Your task to perform on an android device: Open Amazon Image 0: 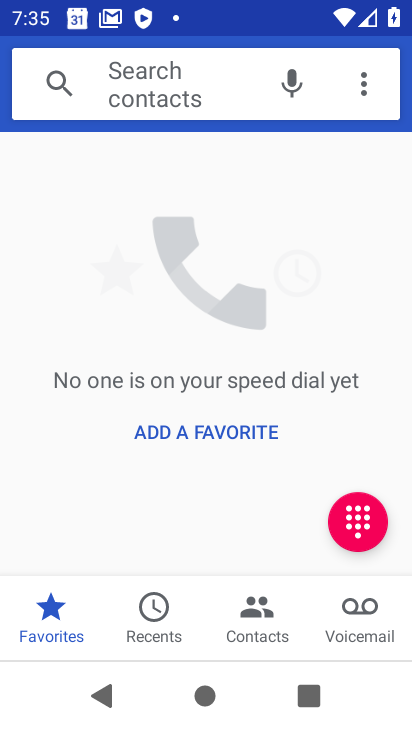
Step 0: click (257, 484)
Your task to perform on an android device: Open Amazon Image 1: 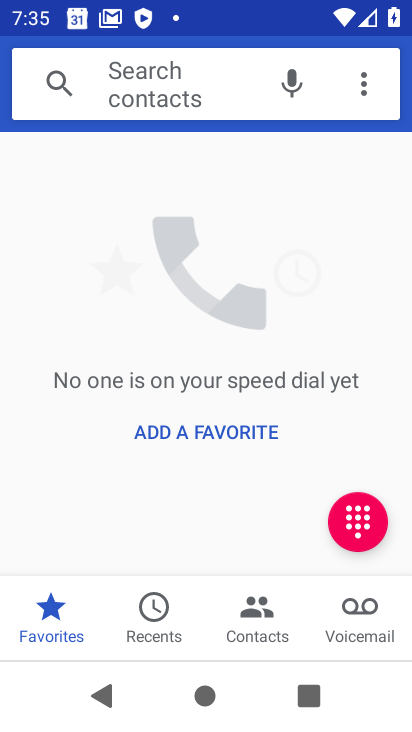
Step 1: press home button
Your task to perform on an android device: Open Amazon Image 2: 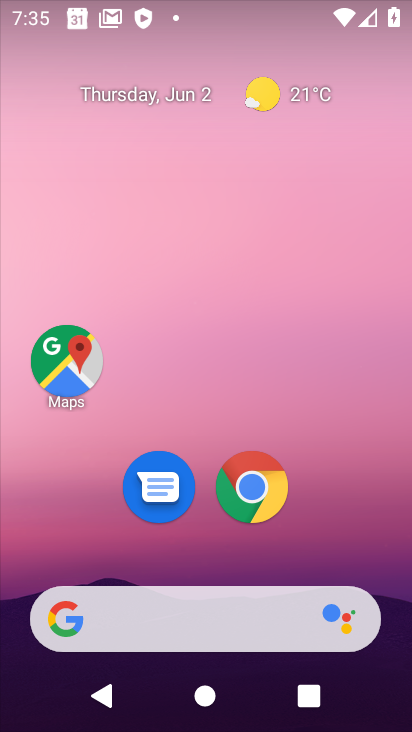
Step 2: click (255, 481)
Your task to perform on an android device: Open Amazon Image 3: 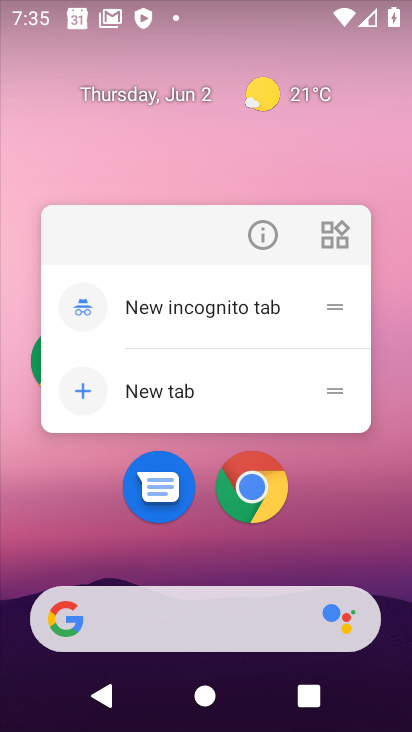
Step 3: click (267, 236)
Your task to perform on an android device: Open Amazon Image 4: 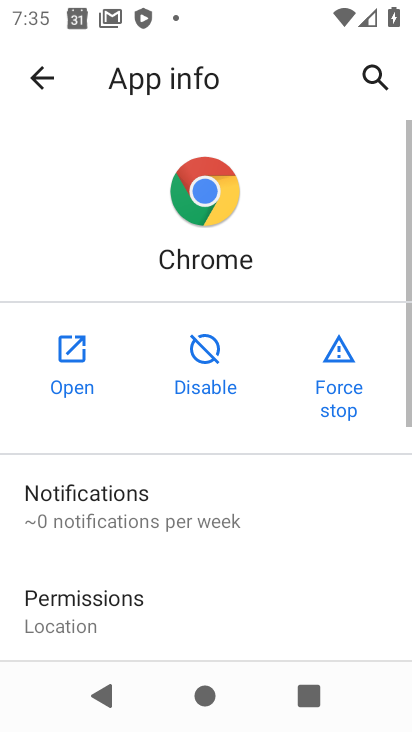
Step 4: click (80, 360)
Your task to perform on an android device: Open Amazon Image 5: 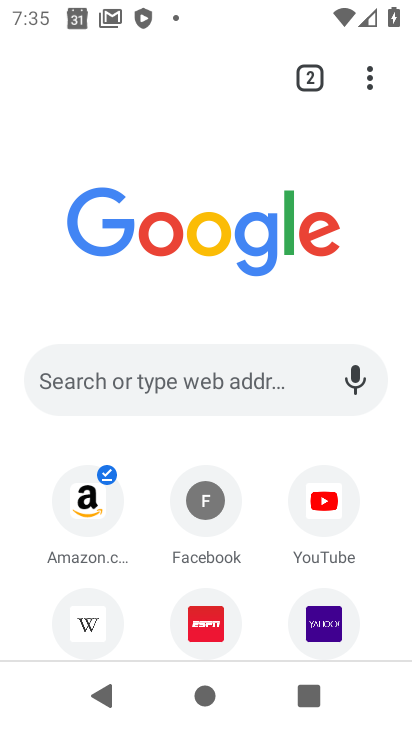
Step 5: click (79, 403)
Your task to perform on an android device: Open Amazon Image 6: 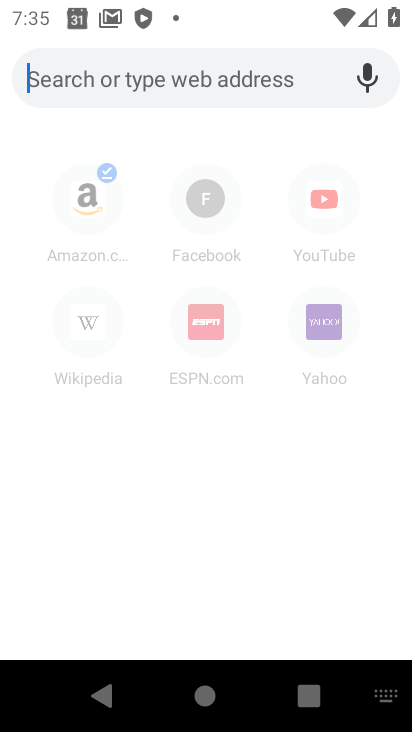
Step 6: type "Amazon"
Your task to perform on an android device: Open Amazon Image 7: 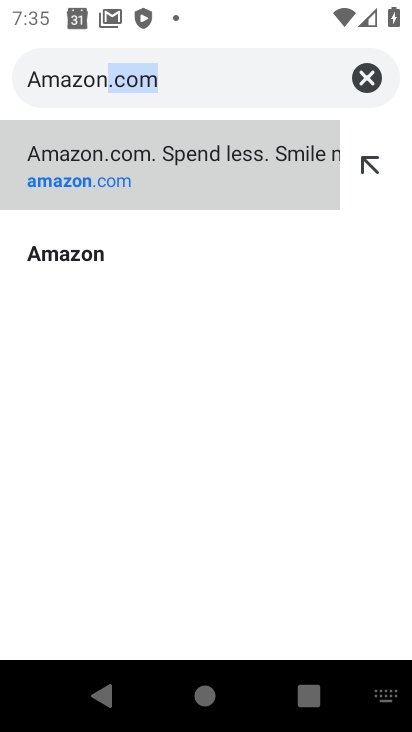
Step 7: click (96, 251)
Your task to perform on an android device: Open Amazon Image 8: 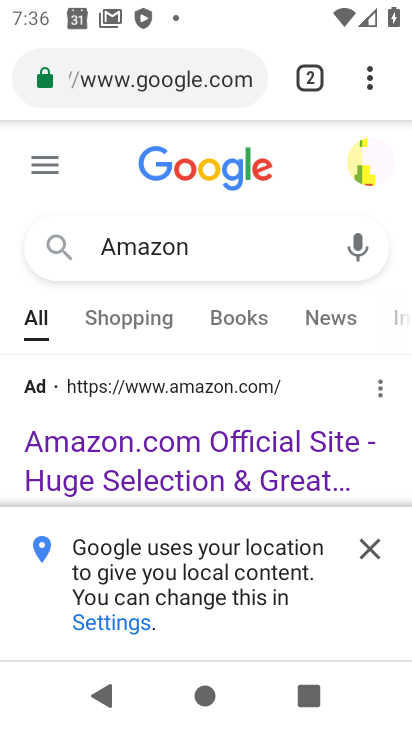
Step 8: task complete